Your task to perform on an android device: Go to eBay Image 0: 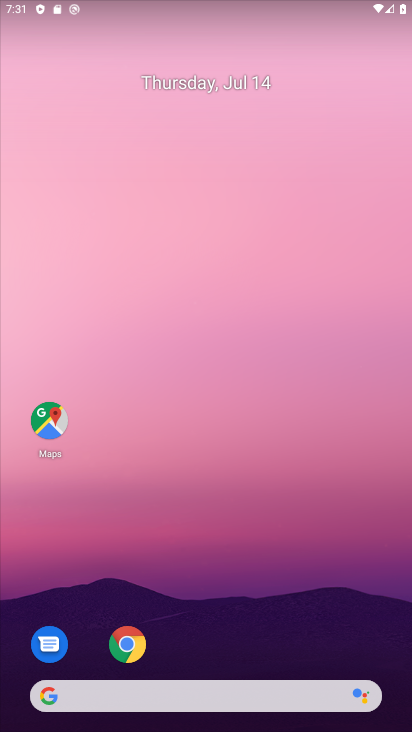
Step 0: click (145, 642)
Your task to perform on an android device: Go to eBay Image 1: 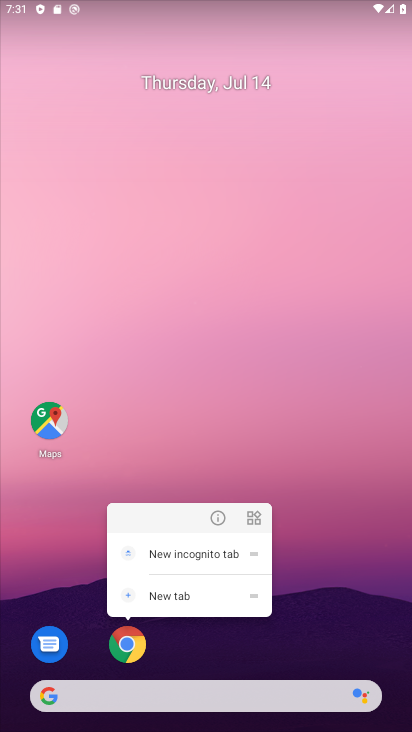
Step 1: click (115, 650)
Your task to perform on an android device: Go to eBay Image 2: 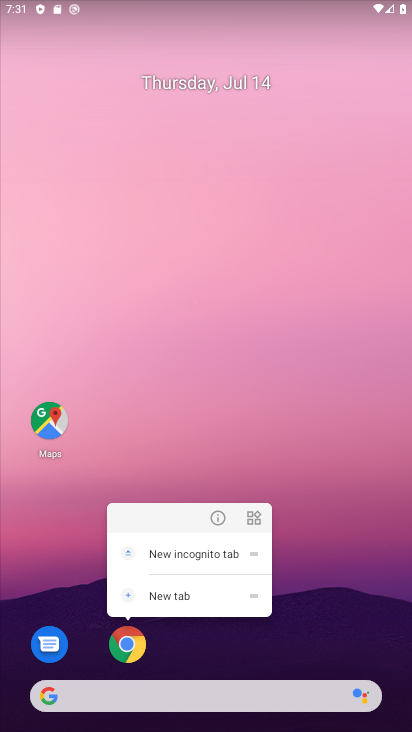
Step 2: click (123, 647)
Your task to perform on an android device: Go to eBay Image 3: 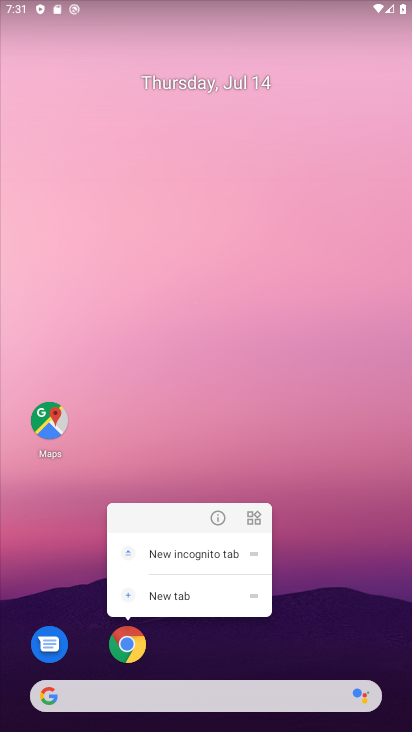
Step 3: click (131, 640)
Your task to perform on an android device: Go to eBay Image 4: 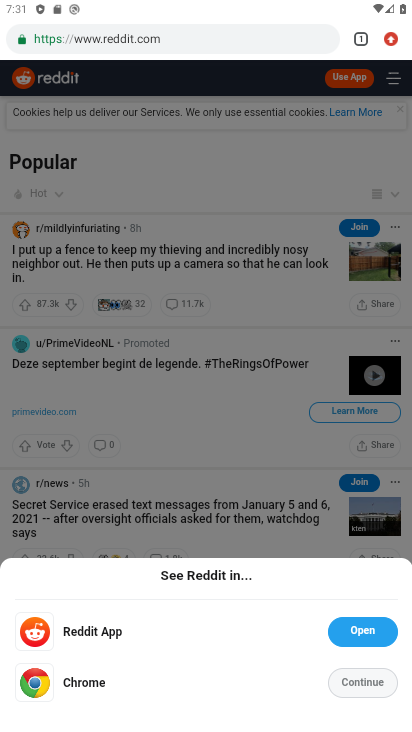
Step 4: click (392, 39)
Your task to perform on an android device: Go to eBay Image 5: 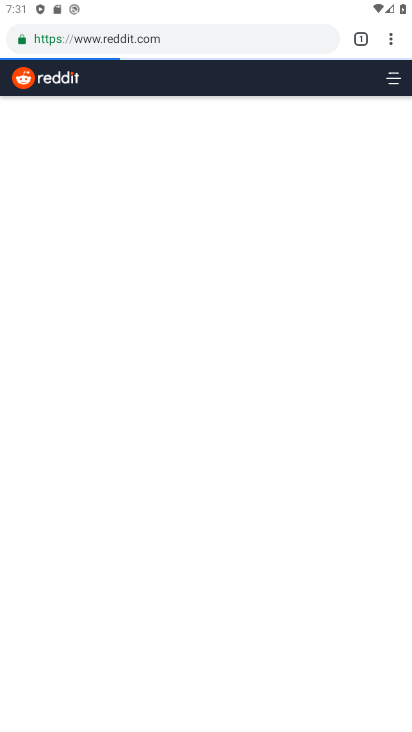
Step 5: drag from (392, 39) to (278, 123)
Your task to perform on an android device: Go to eBay Image 6: 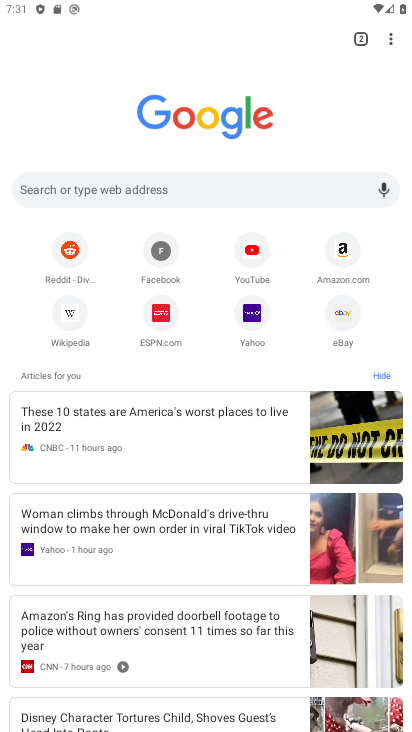
Step 6: click (344, 310)
Your task to perform on an android device: Go to eBay Image 7: 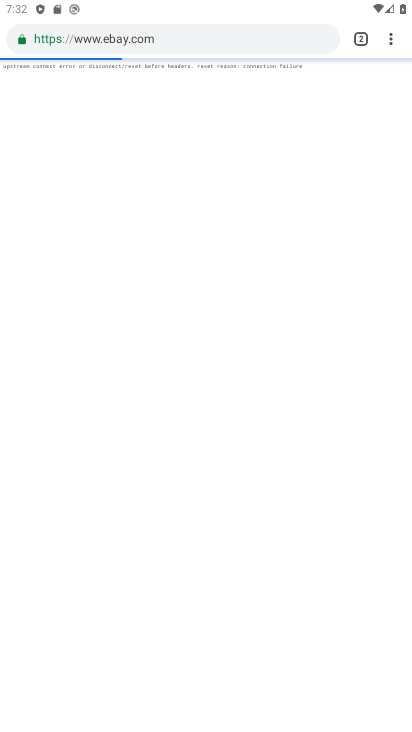
Step 7: click (341, 314)
Your task to perform on an android device: Go to eBay Image 8: 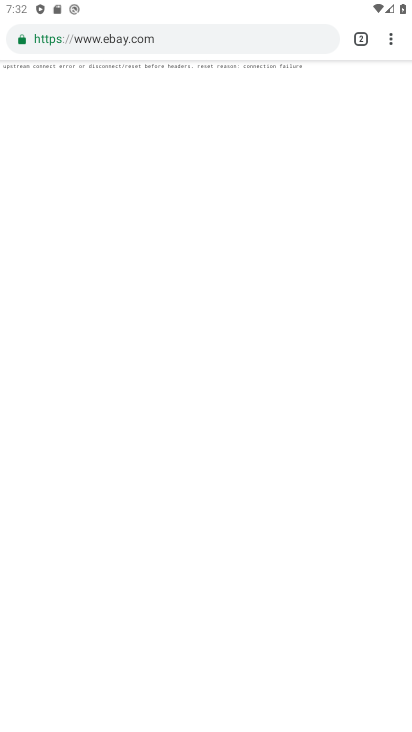
Step 8: drag from (181, 81) to (91, 397)
Your task to perform on an android device: Go to eBay Image 9: 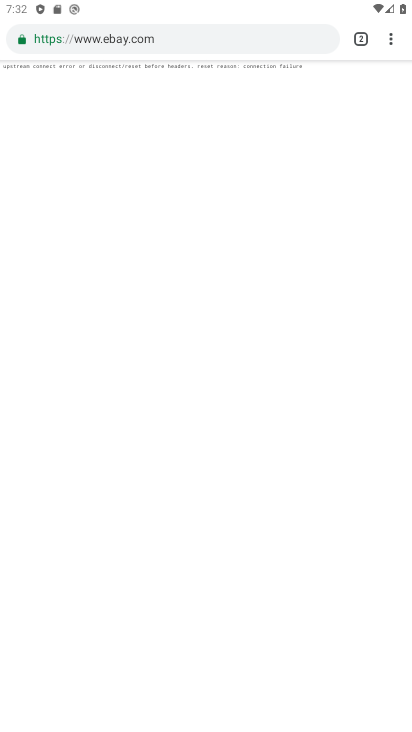
Step 9: press back button
Your task to perform on an android device: Go to eBay Image 10: 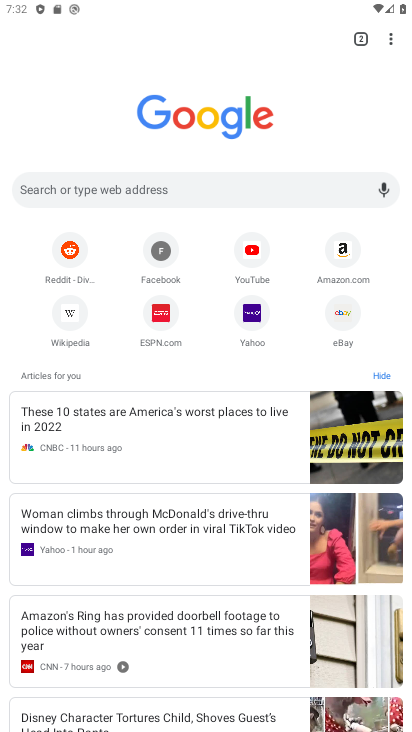
Step 10: click (356, 317)
Your task to perform on an android device: Go to eBay Image 11: 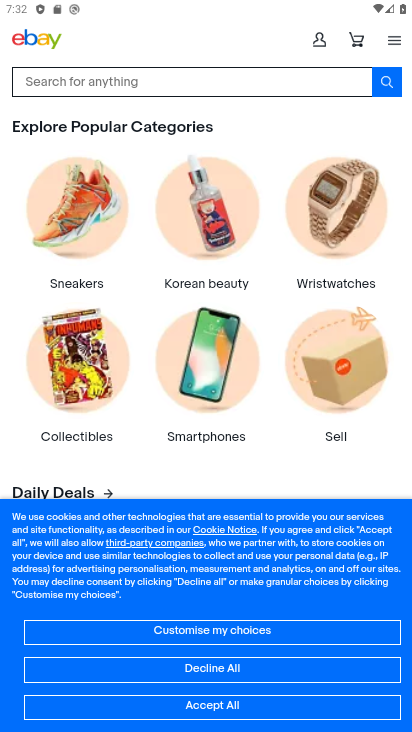
Step 11: click (230, 708)
Your task to perform on an android device: Go to eBay Image 12: 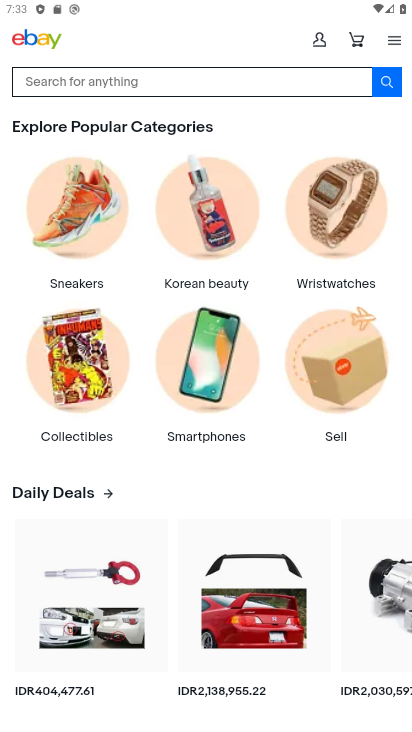
Step 12: task complete